Your task to perform on an android device: toggle translation in the chrome app Image 0: 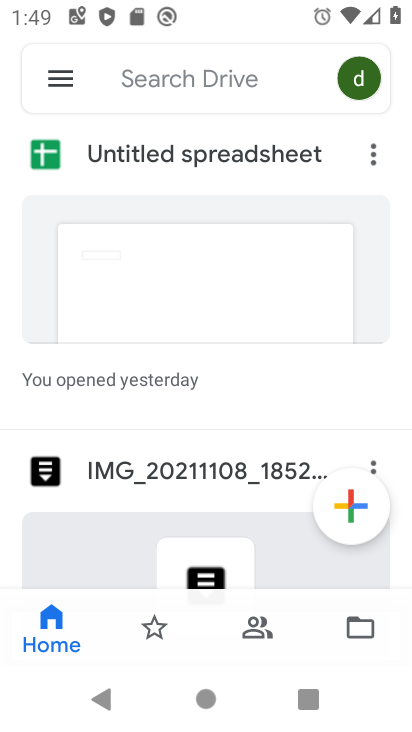
Step 0: press home button
Your task to perform on an android device: toggle translation in the chrome app Image 1: 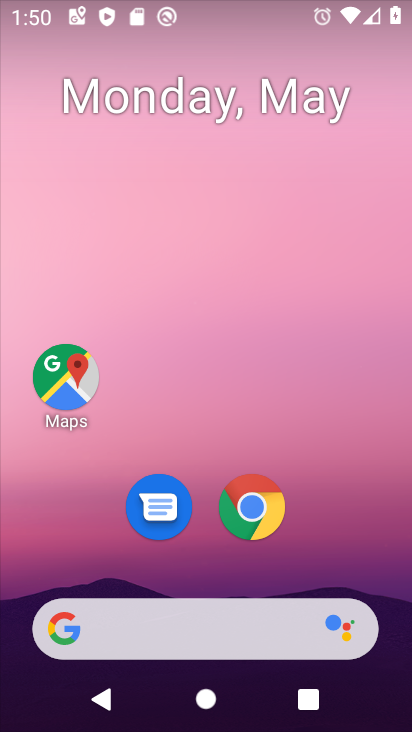
Step 1: click (255, 515)
Your task to perform on an android device: toggle translation in the chrome app Image 2: 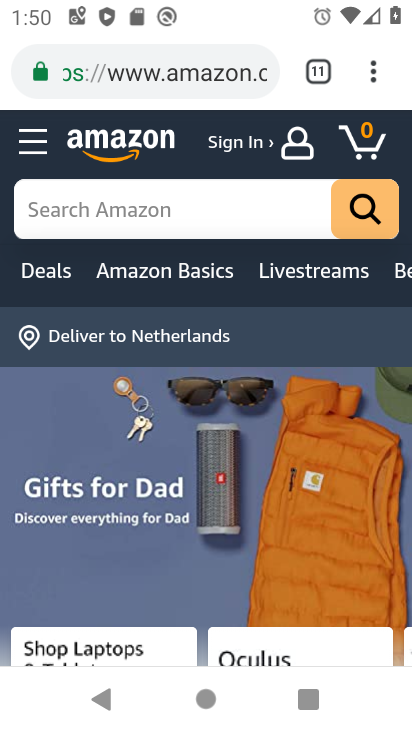
Step 2: click (373, 78)
Your task to perform on an android device: toggle translation in the chrome app Image 3: 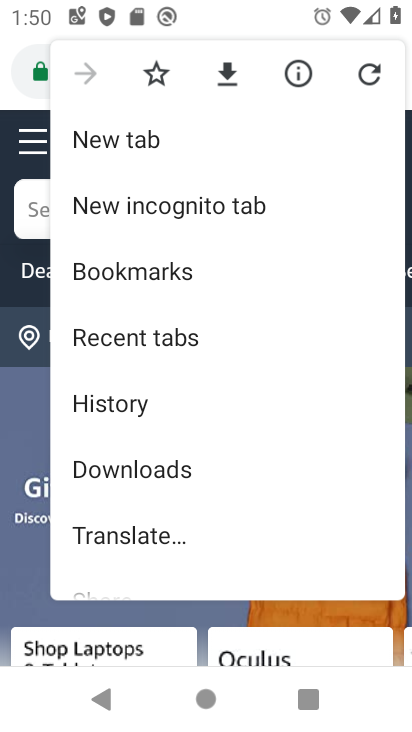
Step 3: drag from (135, 555) to (132, 203)
Your task to perform on an android device: toggle translation in the chrome app Image 4: 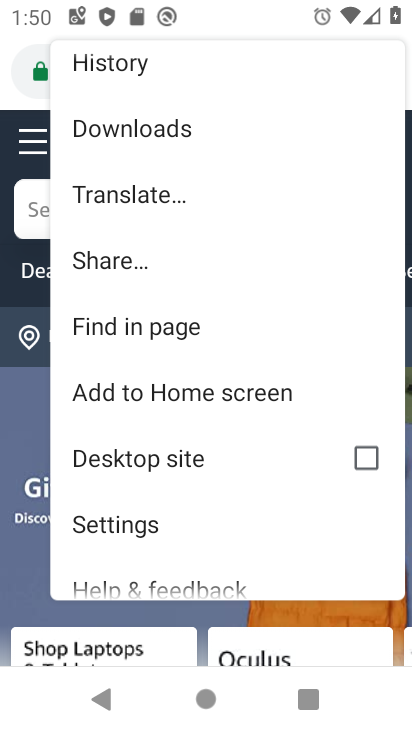
Step 4: click (132, 532)
Your task to perform on an android device: toggle translation in the chrome app Image 5: 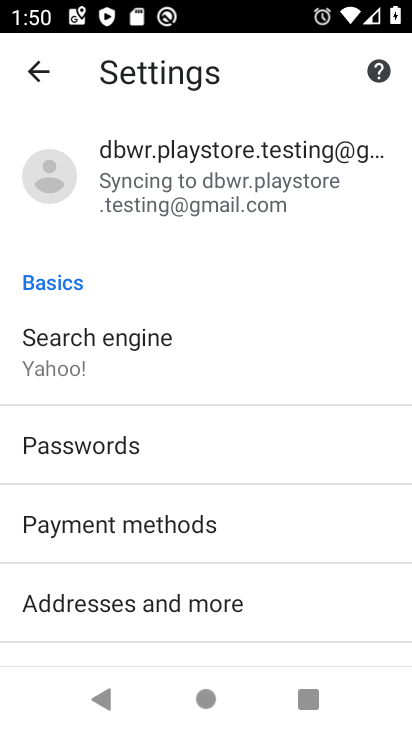
Step 5: drag from (152, 655) to (156, 99)
Your task to perform on an android device: toggle translation in the chrome app Image 6: 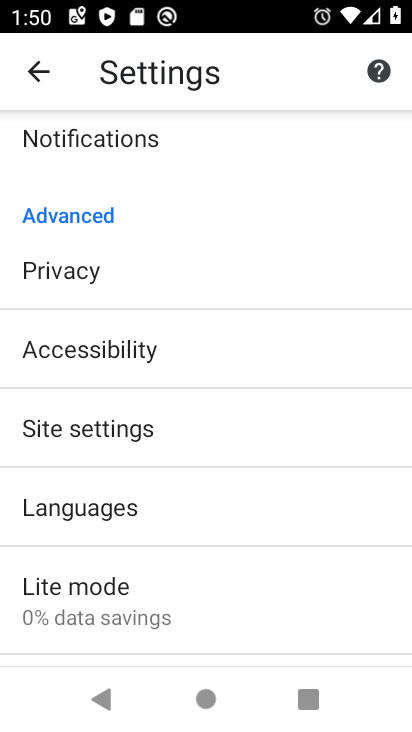
Step 6: click (81, 505)
Your task to perform on an android device: toggle translation in the chrome app Image 7: 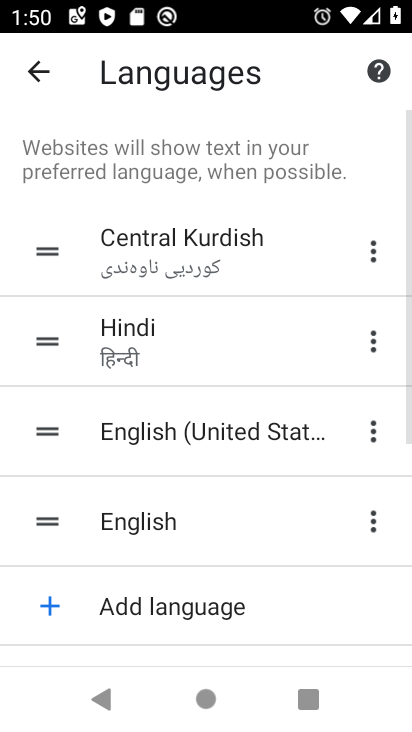
Step 7: drag from (197, 608) to (200, 176)
Your task to perform on an android device: toggle translation in the chrome app Image 8: 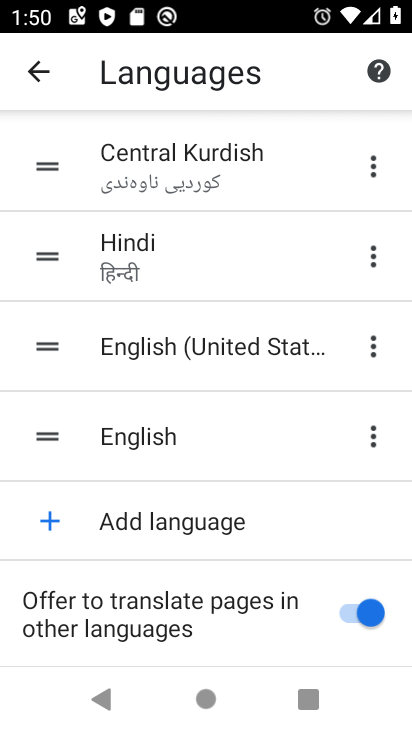
Step 8: click (353, 608)
Your task to perform on an android device: toggle translation in the chrome app Image 9: 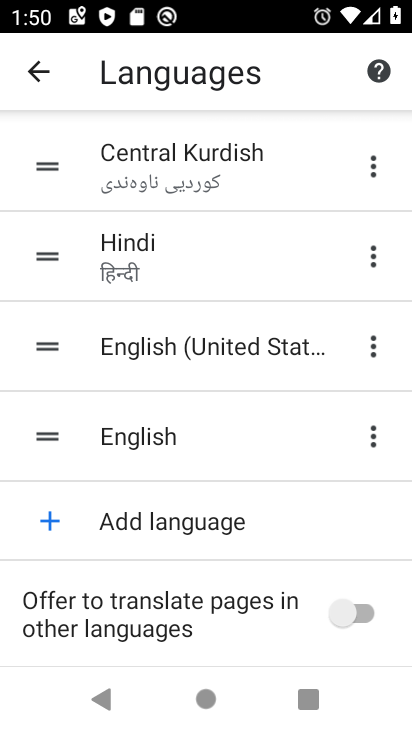
Step 9: task complete